Your task to perform on an android device: open the mobile data screen to see how much data has been used Image 0: 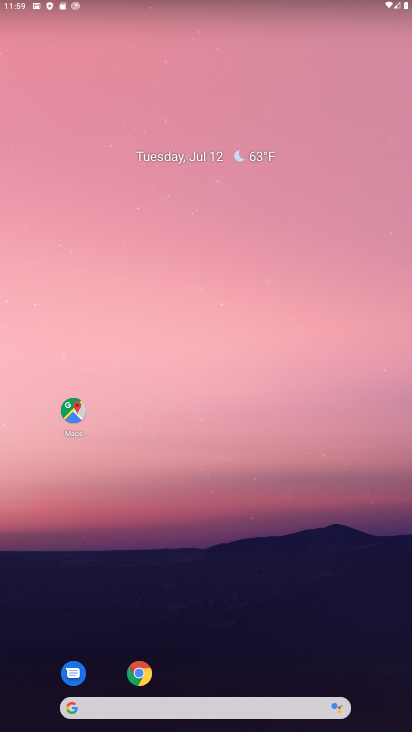
Step 0: drag from (322, 586) to (325, 60)
Your task to perform on an android device: open the mobile data screen to see how much data has been used Image 1: 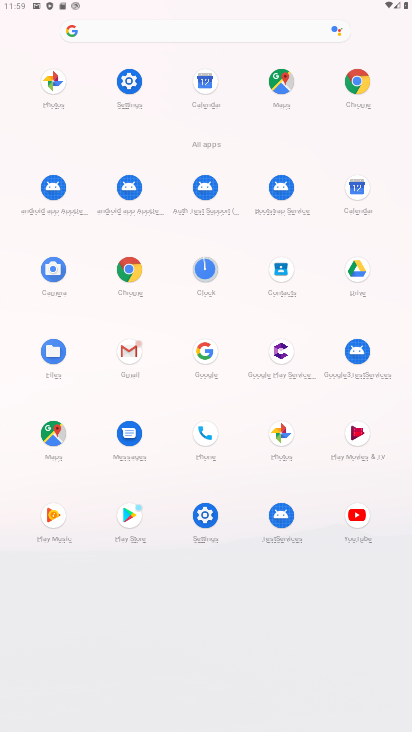
Step 1: drag from (374, 0) to (345, 463)
Your task to perform on an android device: open the mobile data screen to see how much data has been used Image 2: 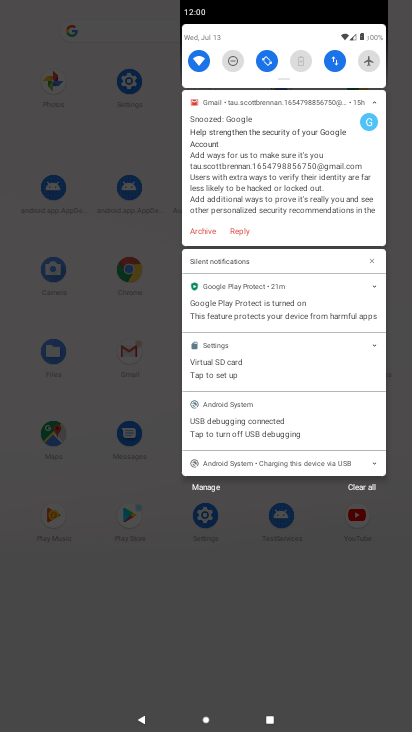
Step 2: click (338, 67)
Your task to perform on an android device: open the mobile data screen to see how much data has been used Image 3: 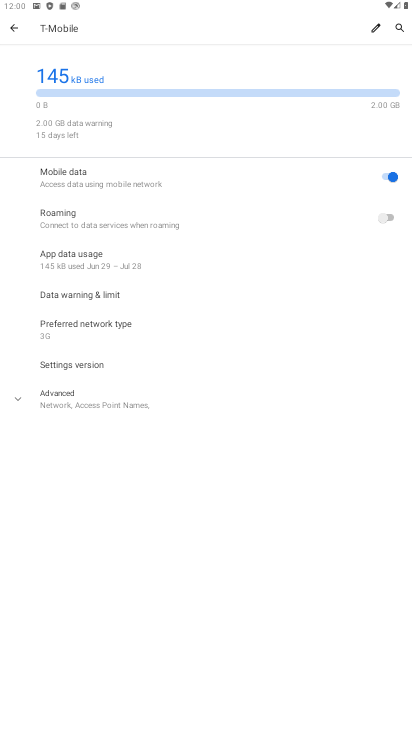
Step 3: task complete